Your task to perform on an android device: Go to CNN.com Image 0: 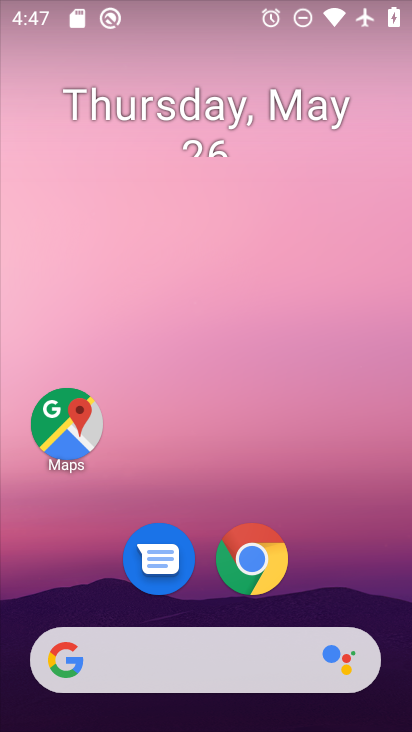
Step 0: click (268, 563)
Your task to perform on an android device: Go to CNN.com Image 1: 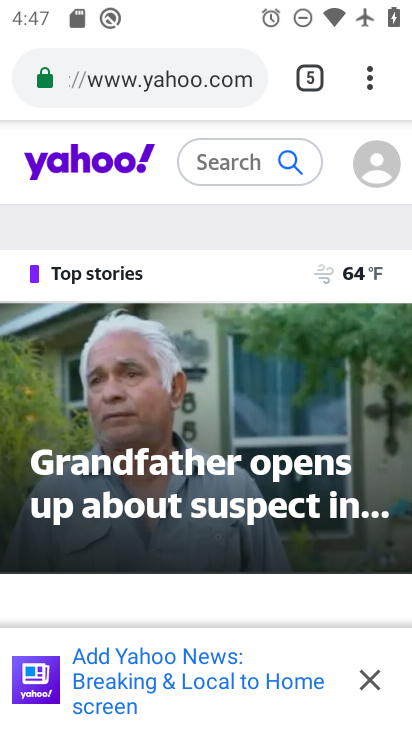
Step 1: click (299, 89)
Your task to perform on an android device: Go to CNN.com Image 2: 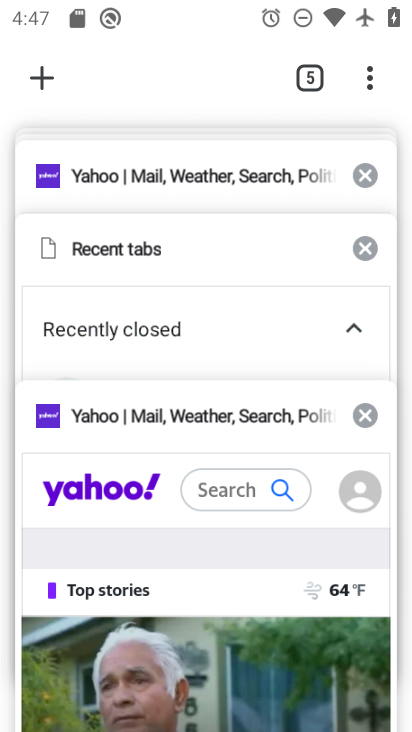
Step 2: click (42, 67)
Your task to perform on an android device: Go to CNN.com Image 3: 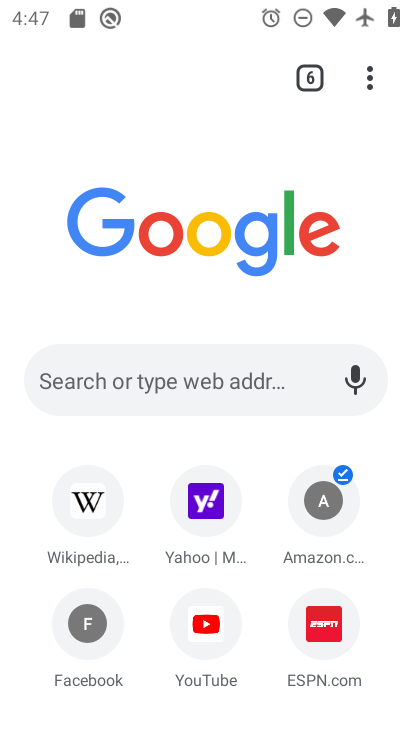
Step 3: click (169, 368)
Your task to perform on an android device: Go to CNN.com Image 4: 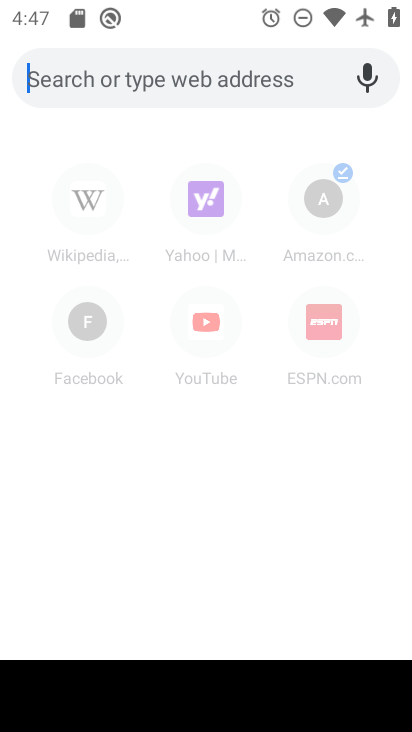
Step 4: type "CNN.com"
Your task to perform on an android device: Go to CNN.com Image 5: 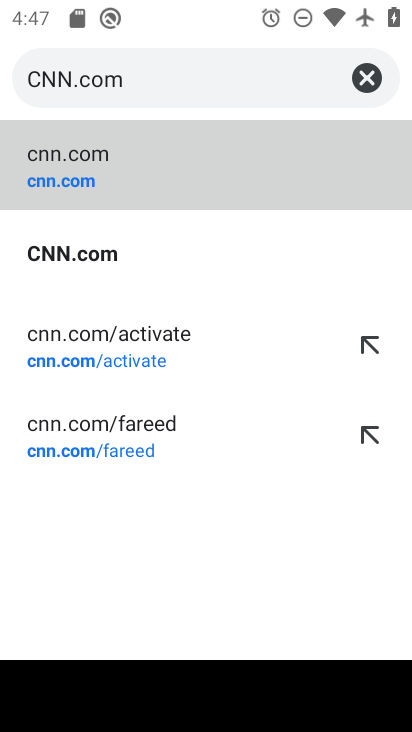
Step 5: click (259, 183)
Your task to perform on an android device: Go to CNN.com Image 6: 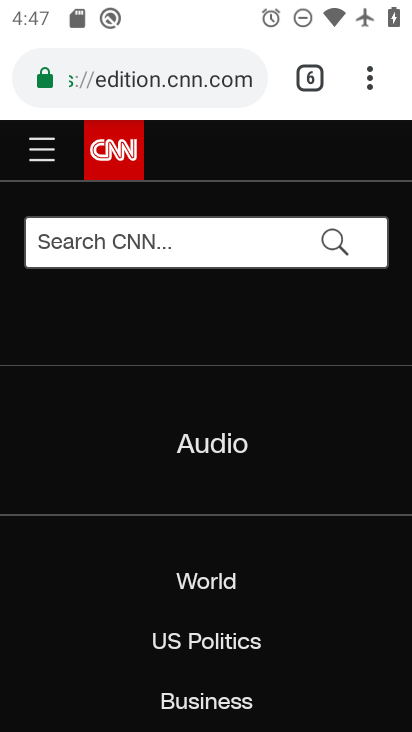
Step 6: task complete